Your task to perform on an android device: Open display settings Image 0: 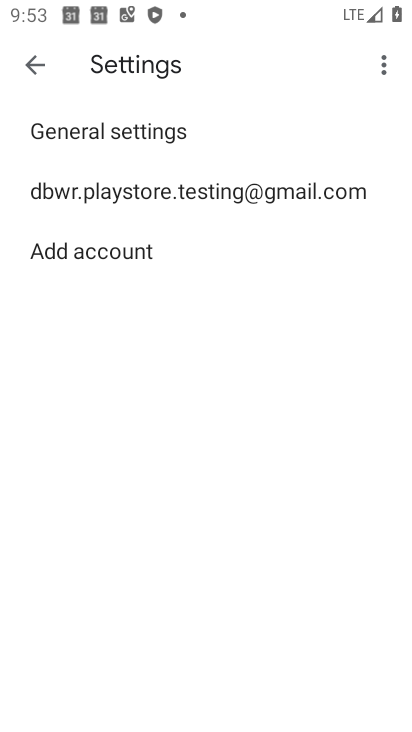
Step 0: press home button
Your task to perform on an android device: Open display settings Image 1: 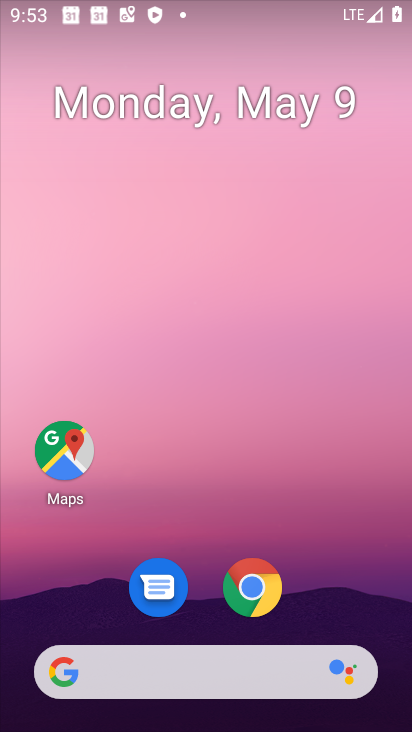
Step 1: drag from (187, 627) to (212, 226)
Your task to perform on an android device: Open display settings Image 2: 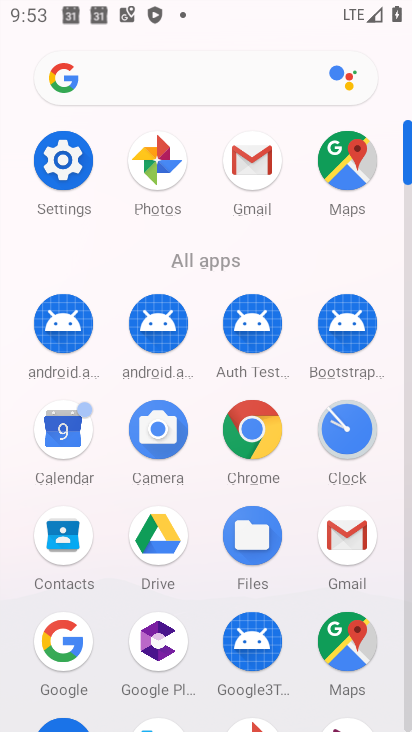
Step 2: click (59, 163)
Your task to perform on an android device: Open display settings Image 3: 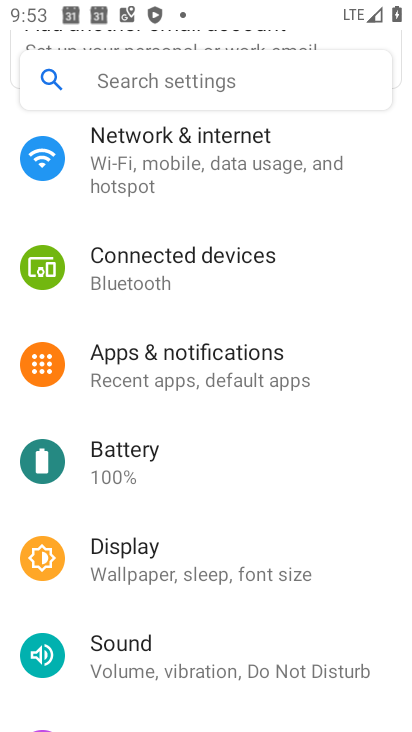
Step 3: click (158, 541)
Your task to perform on an android device: Open display settings Image 4: 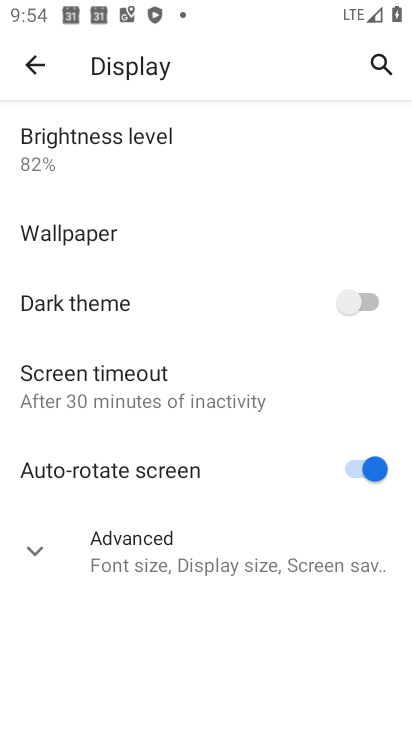
Step 4: task complete